Your task to perform on an android device: add a contact in the contacts app Image 0: 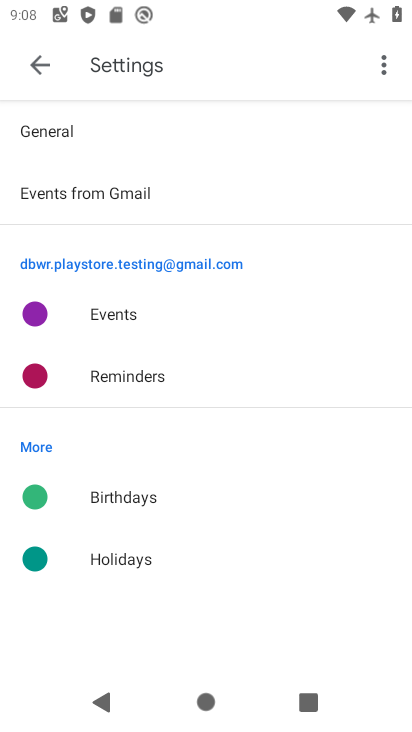
Step 0: press home button
Your task to perform on an android device: add a contact in the contacts app Image 1: 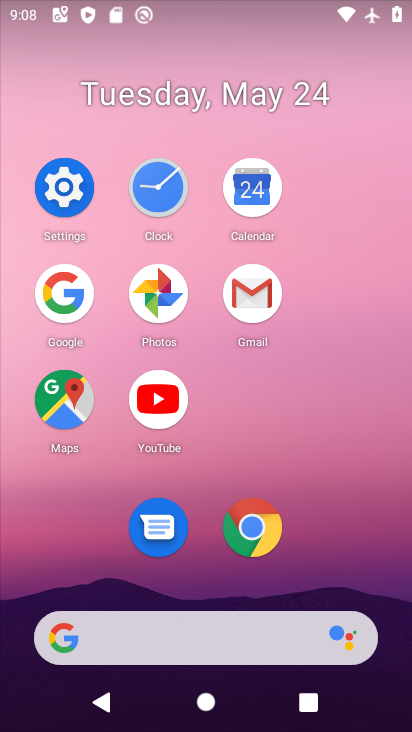
Step 1: drag from (339, 527) to (336, 86)
Your task to perform on an android device: add a contact in the contacts app Image 2: 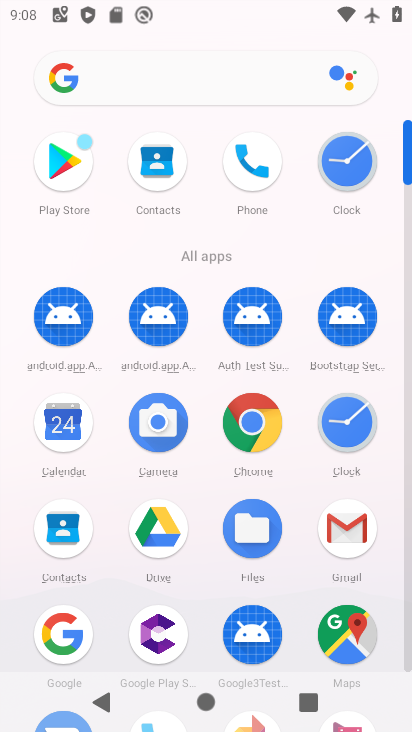
Step 2: click (52, 527)
Your task to perform on an android device: add a contact in the contacts app Image 3: 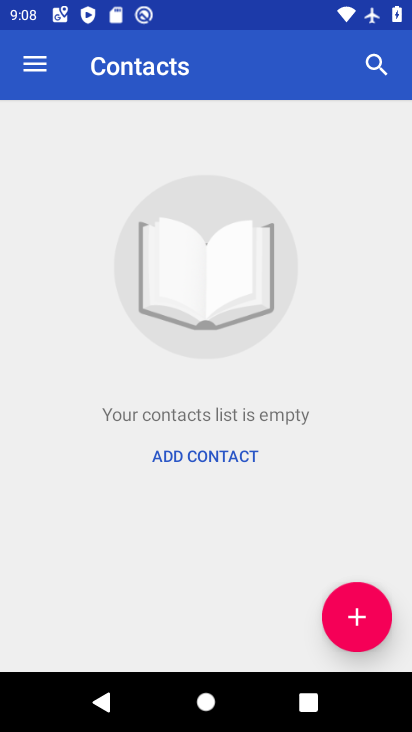
Step 3: click (347, 610)
Your task to perform on an android device: add a contact in the contacts app Image 4: 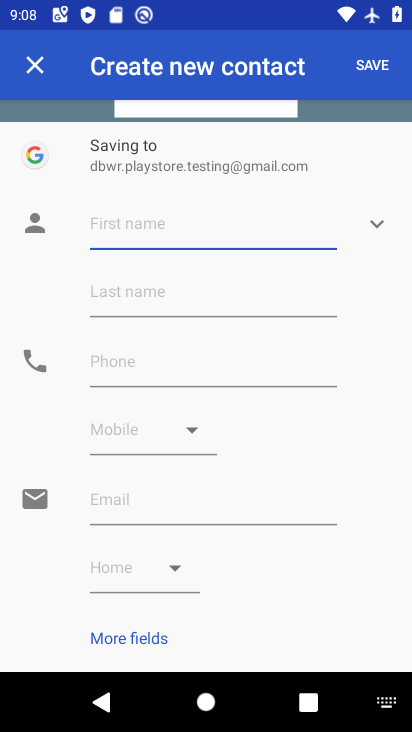
Step 4: type "ppt"
Your task to perform on an android device: add a contact in the contacts app Image 5: 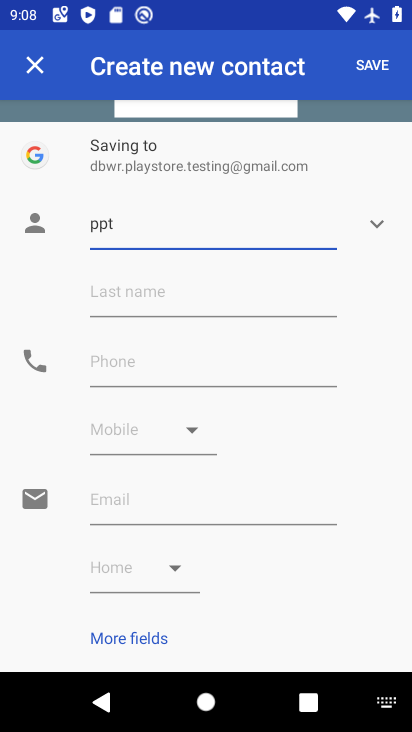
Step 5: click (211, 371)
Your task to perform on an android device: add a contact in the contacts app Image 6: 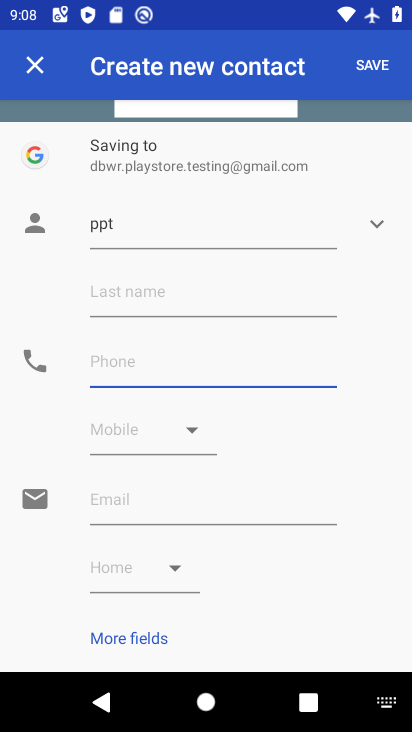
Step 6: type "8877231200"
Your task to perform on an android device: add a contact in the contacts app Image 7: 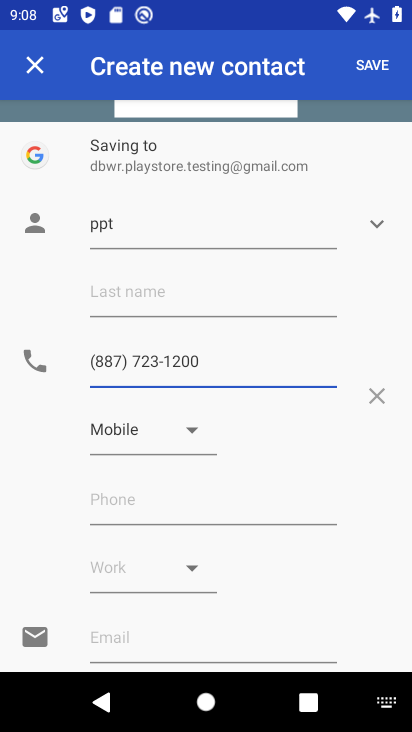
Step 7: click (370, 71)
Your task to perform on an android device: add a contact in the contacts app Image 8: 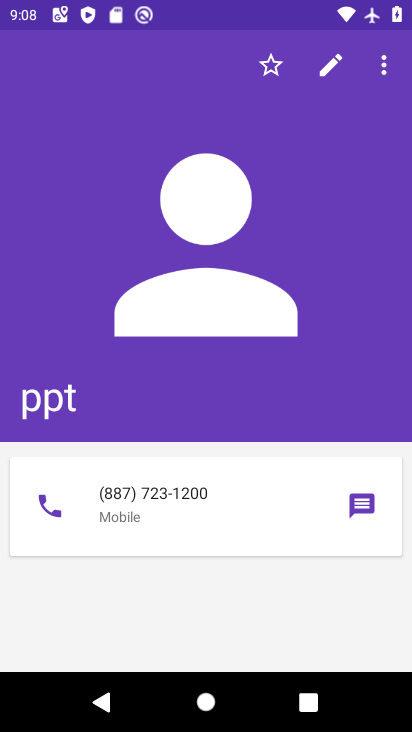
Step 8: task complete